Your task to perform on an android device: turn on wifi Image 0: 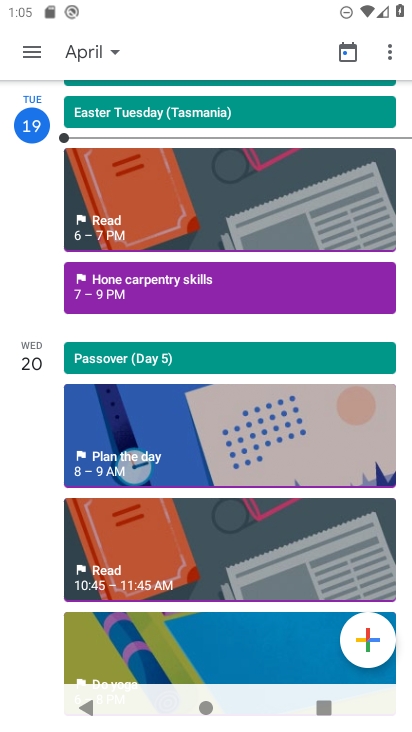
Step 0: press home button
Your task to perform on an android device: turn on wifi Image 1: 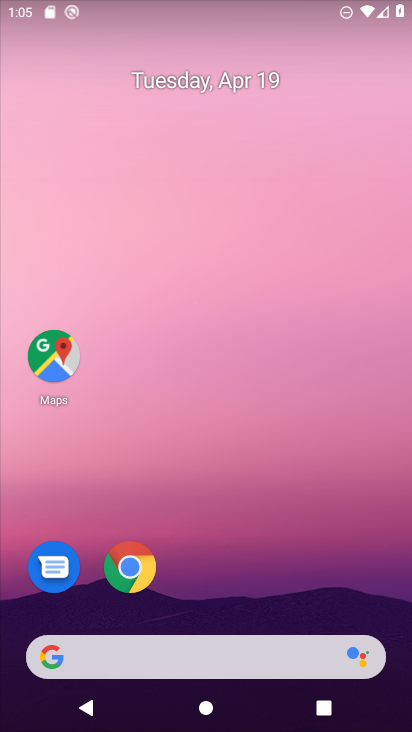
Step 1: task complete